Your task to perform on an android device: Search for hotels in Boston Image 0: 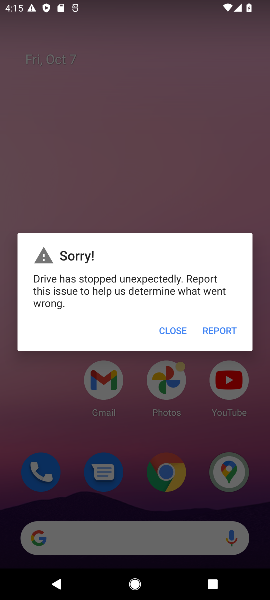
Step 0: click (169, 331)
Your task to perform on an android device: Search for hotels in Boston Image 1: 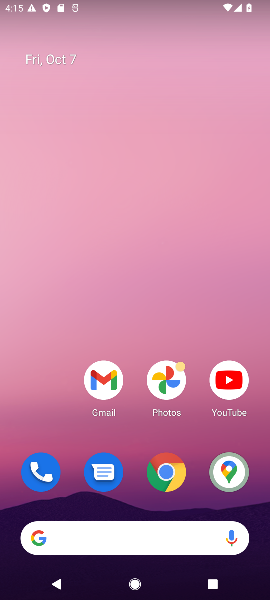
Step 1: click (164, 469)
Your task to perform on an android device: Search for hotels in Boston Image 2: 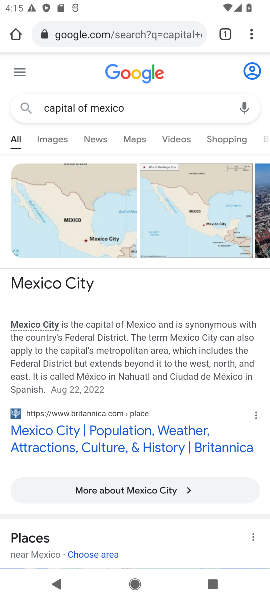
Step 2: click (109, 31)
Your task to perform on an android device: Search for hotels in Boston Image 3: 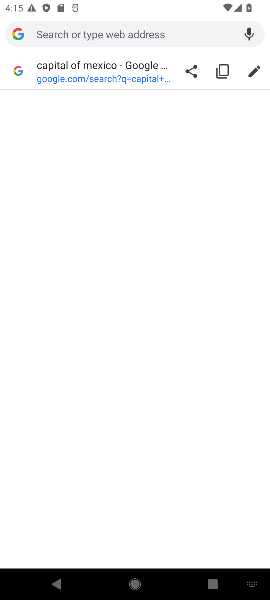
Step 3: type "hotels in boston"
Your task to perform on an android device: Search for hotels in Boston Image 4: 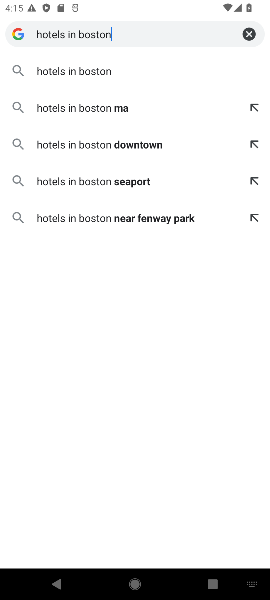
Step 4: press enter
Your task to perform on an android device: Search for hotels in Boston Image 5: 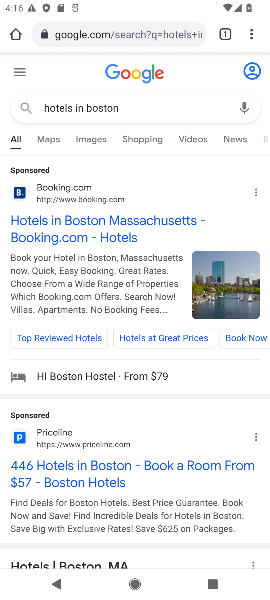
Step 5: drag from (202, 376) to (187, 154)
Your task to perform on an android device: Search for hotels in Boston Image 6: 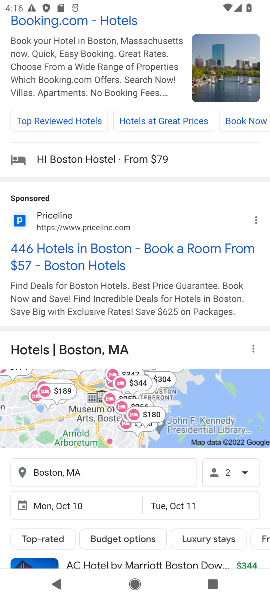
Step 6: drag from (220, 455) to (194, 184)
Your task to perform on an android device: Search for hotels in Boston Image 7: 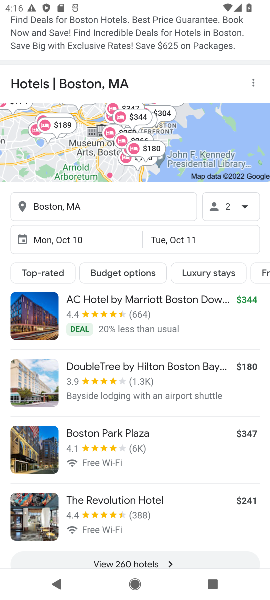
Step 7: click (147, 561)
Your task to perform on an android device: Search for hotels in Boston Image 8: 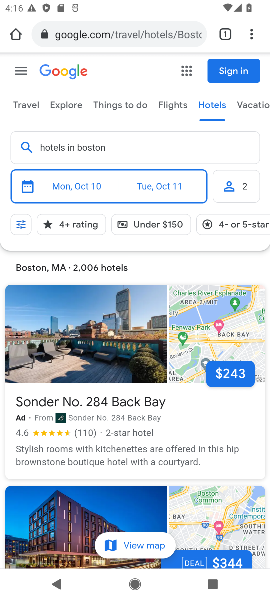
Step 8: task complete